Your task to perform on an android device: open app "Airtel Thanks" Image 0: 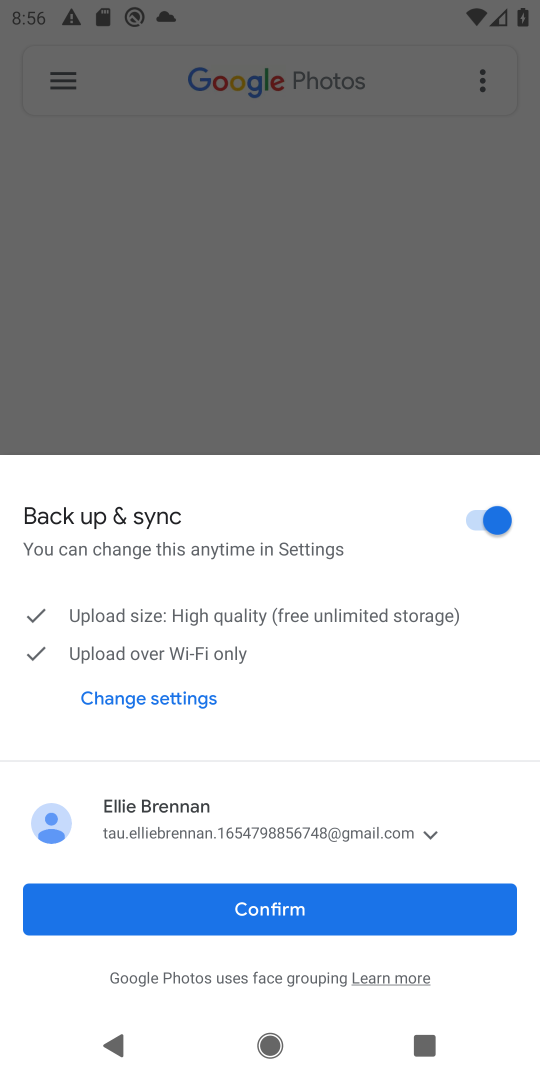
Step 0: press home button
Your task to perform on an android device: open app "Airtel Thanks" Image 1: 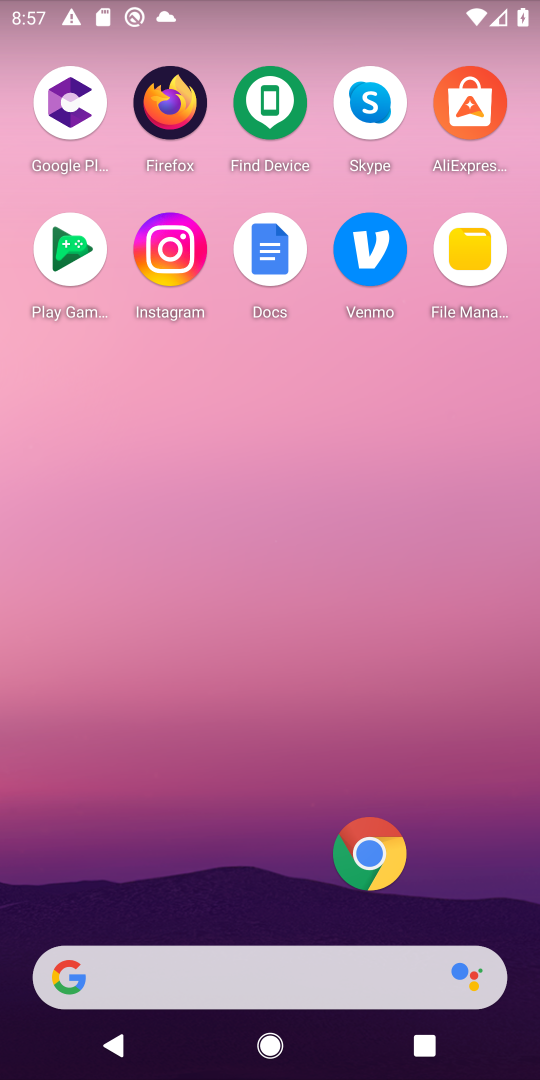
Step 1: drag from (232, 856) to (152, 71)
Your task to perform on an android device: open app "Airtel Thanks" Image 2: 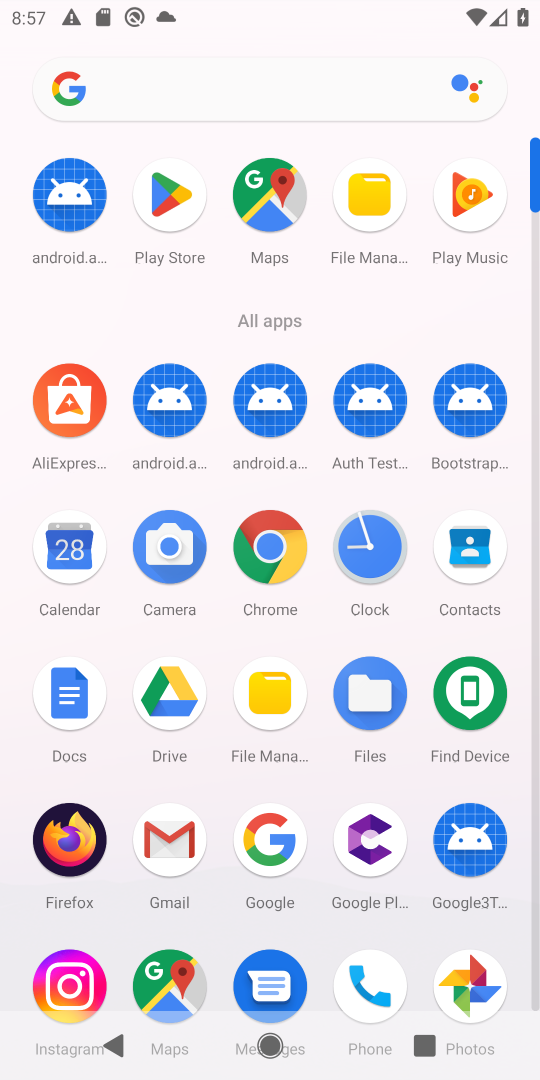
Step 2: click (152, 178)
Your task to perform on an android device: open app "Airtel Thanks" Image 3: 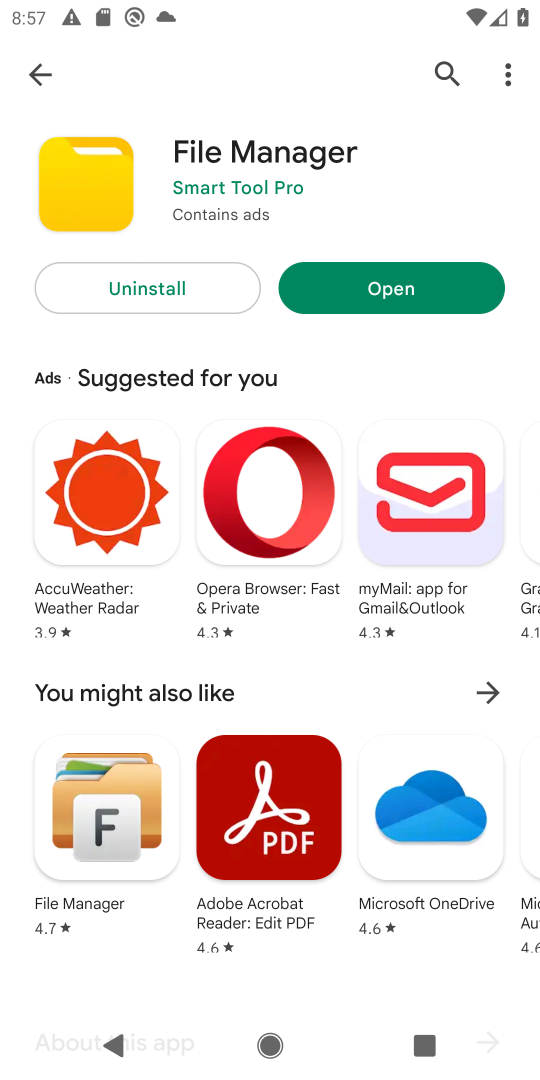
Step 3: click (29, 73)
Your task to perform on an android device: open app "Airtel Thanks" Image 4: 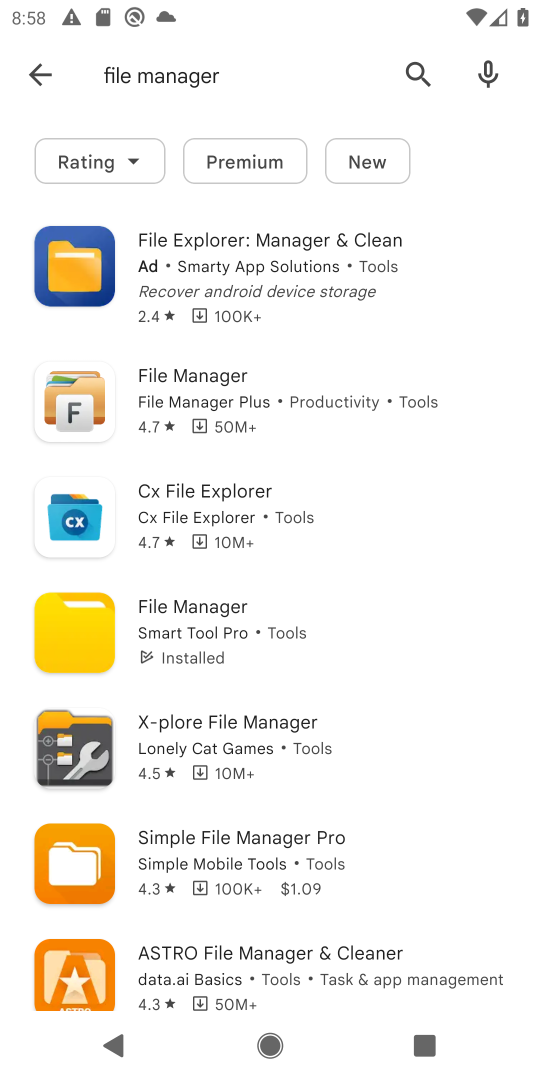
Step 4: click (31, 73)
Your task to perform on an android device: open app "Airtel Thanks" Image 5: 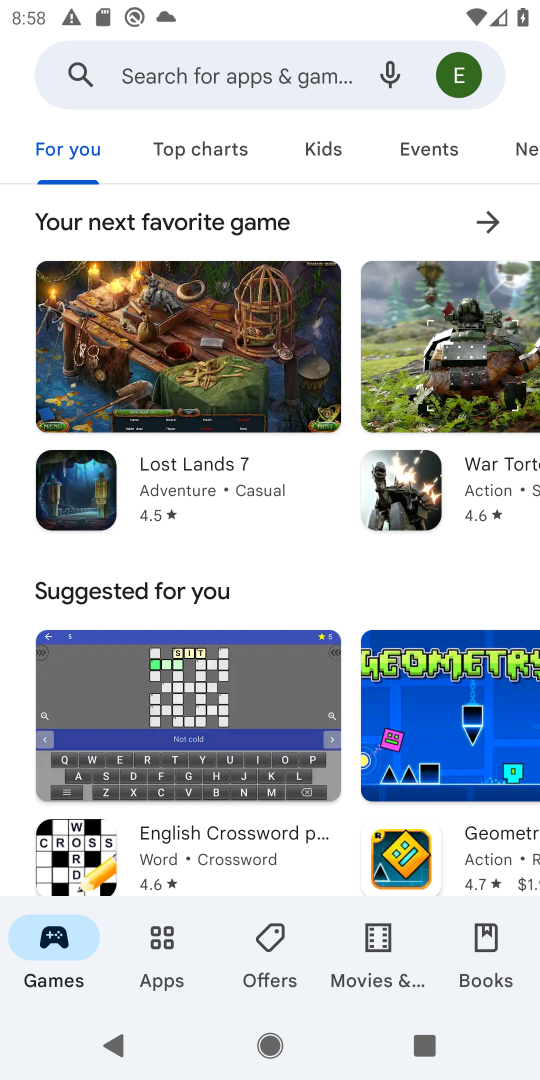
Step 5: drag from (228, 11) to (226, 65)
Your task to perform on an android device: open app "Airtel Thanks" Image 6: 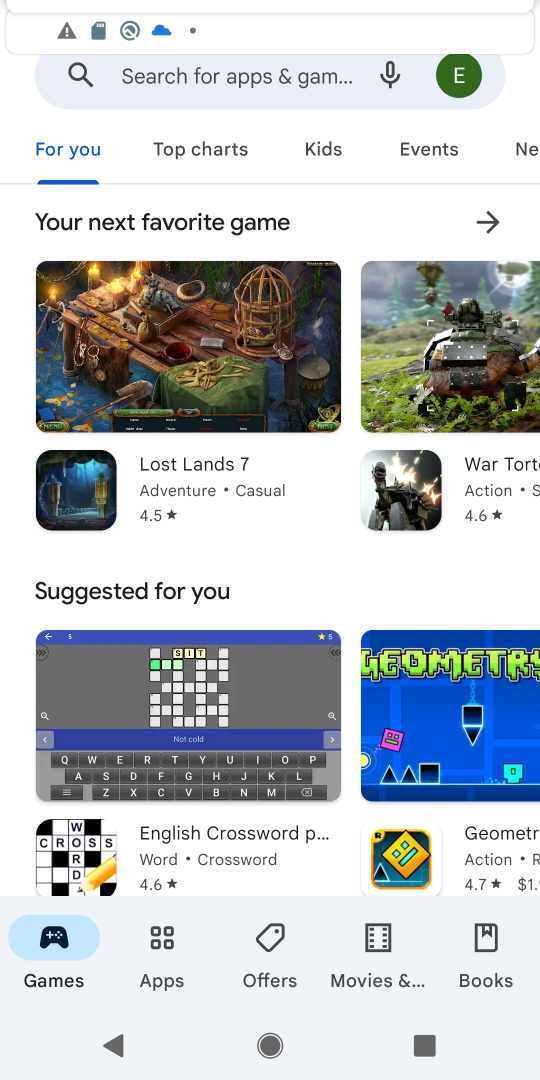
Step 6: click (226, 65)
Your task to perform on an android device: open app "Airtel Thanks" Image 7: 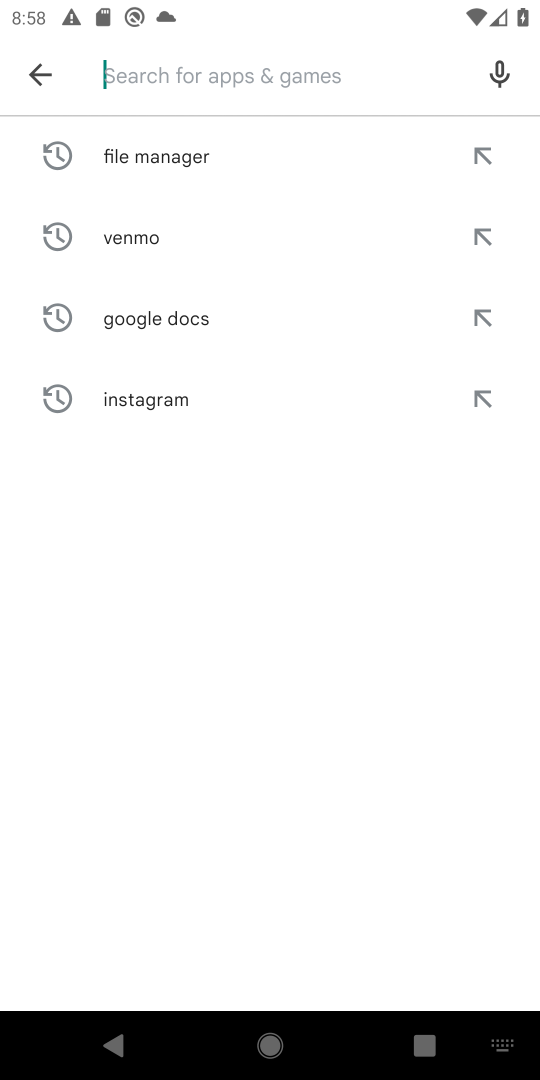
Step 7: type "Airtel Thanks"
Your task to perform on an android device: open app "Airtel Thanks" Image 8: 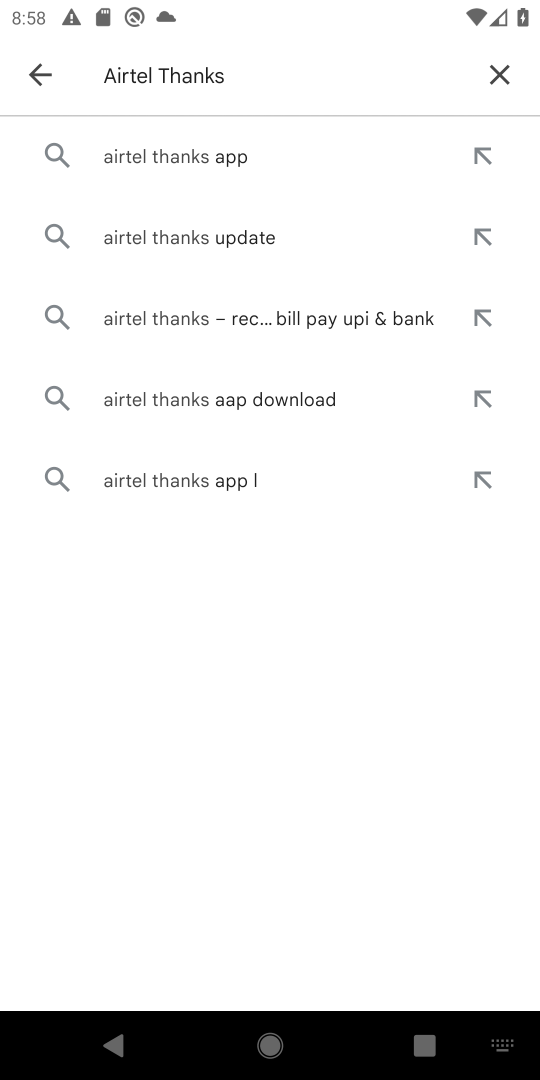
Step 8: click (202, 142)
Your task to perform on an android device: open app "Airtel Thanks" Image 9: 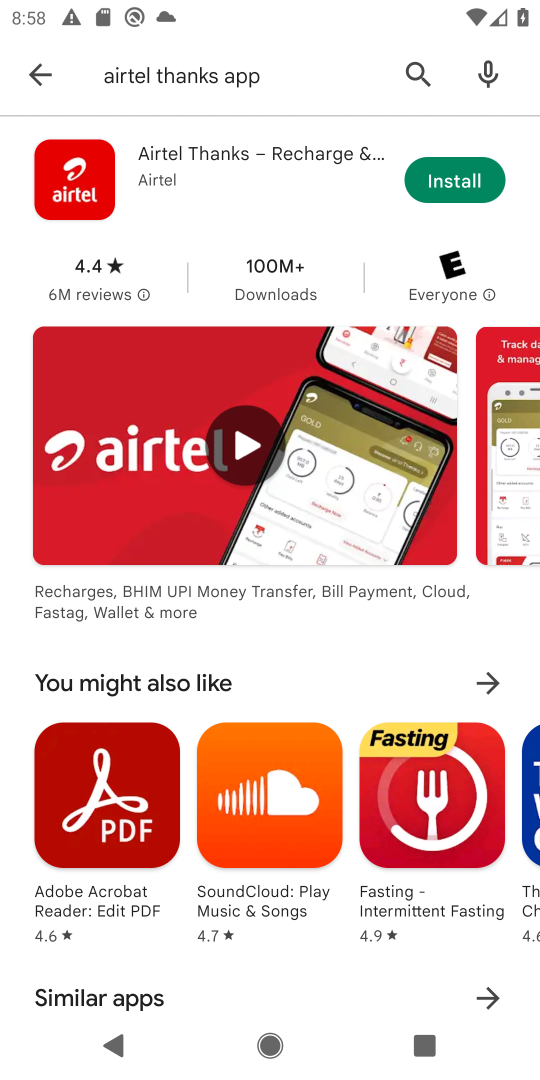
Step 9: click (465, 177)
Your task to perform on an android device: open app "Airtel Thanks" Image 10: 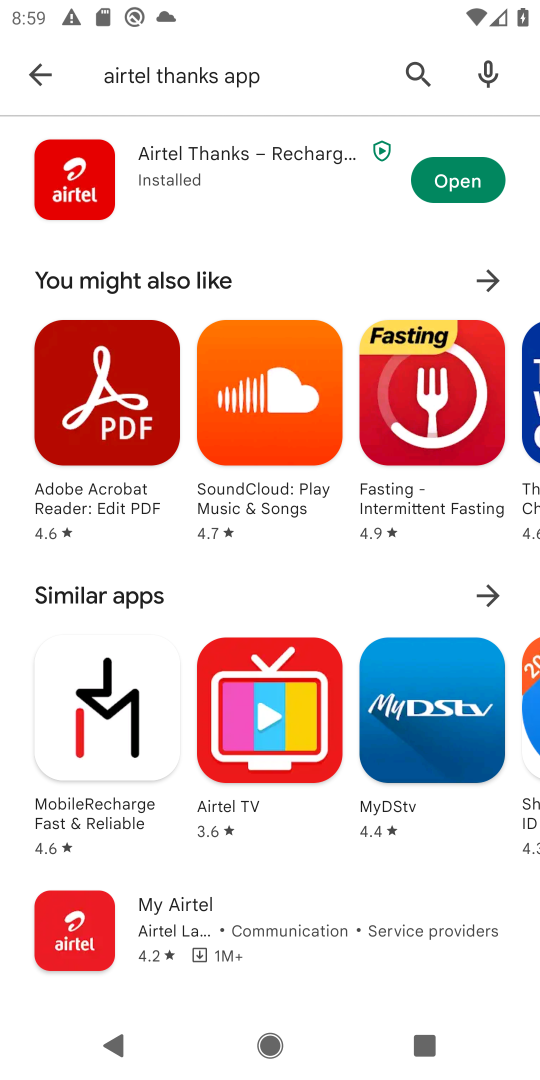
Step 10: click (453, 182)
Your task to perform on an android device: open app "Airtel Thanks" Image 11: 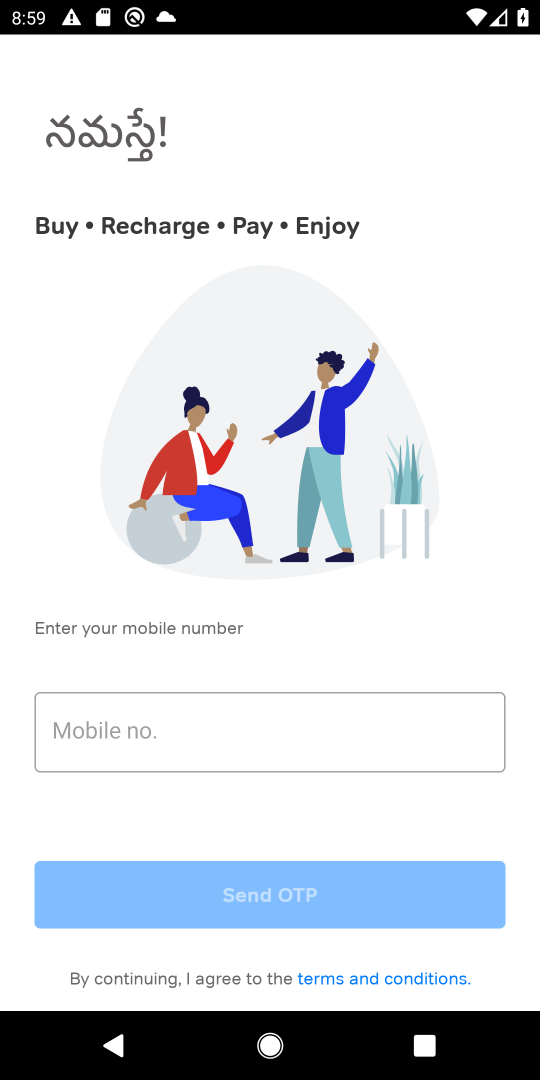
Step 11: task complete